Your task to perform on an android device: set the stopwatch Image 0: 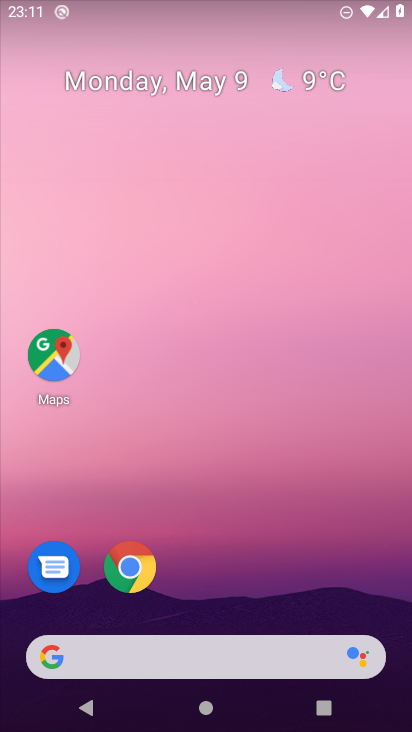
Step 0: drag from (220, 594) to (261, 20)
Your task to perform on an android device: set the stopwatch Image 1: 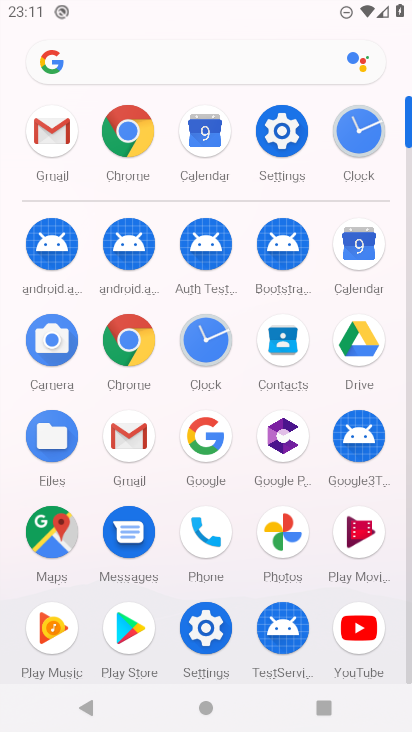
Step 1: click (207, 334)
Your task to perform on an android device: set the stopwatch Image 2: 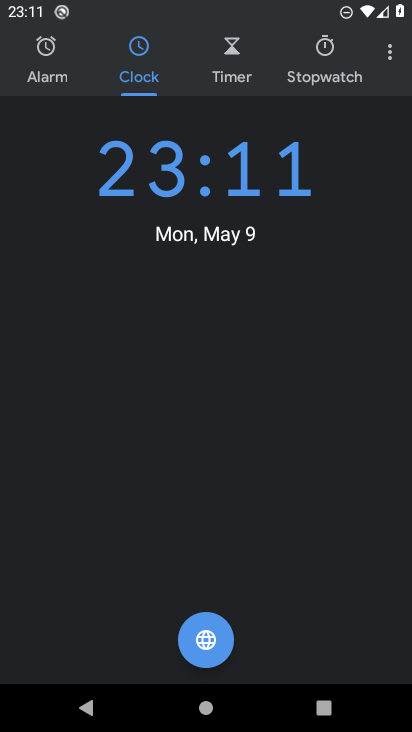
Step 2: click (326, 49)
Your task to perform on an android device: set the stopwatch Image 3: 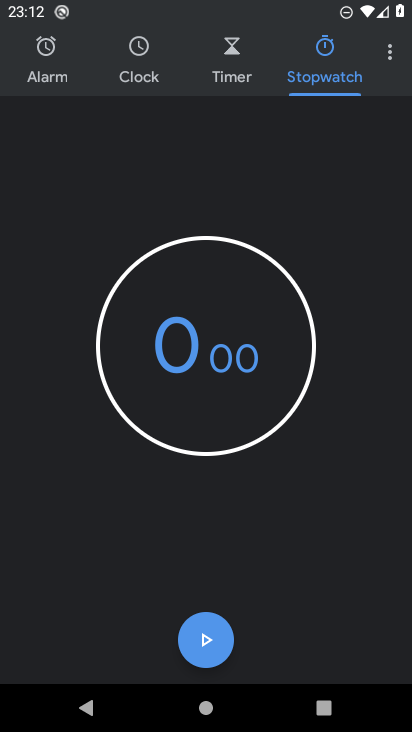
Step 3: click (211, 632)
Your task to perform on an android device: set the stopwatch Image 4: 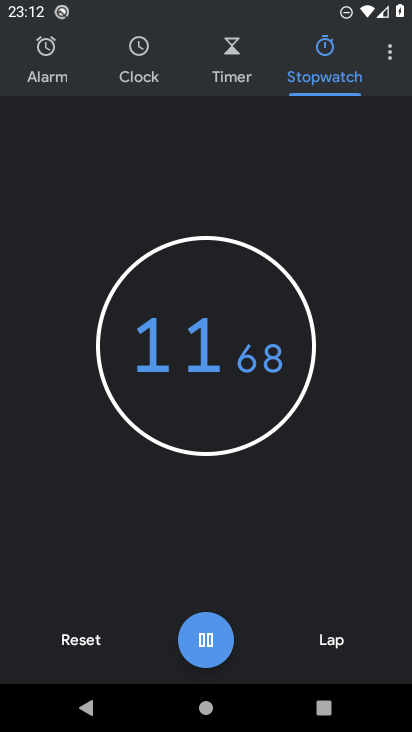
Step 4: click (83, 645)
Your task to perform on an android device: set the stopwatch Image 5: 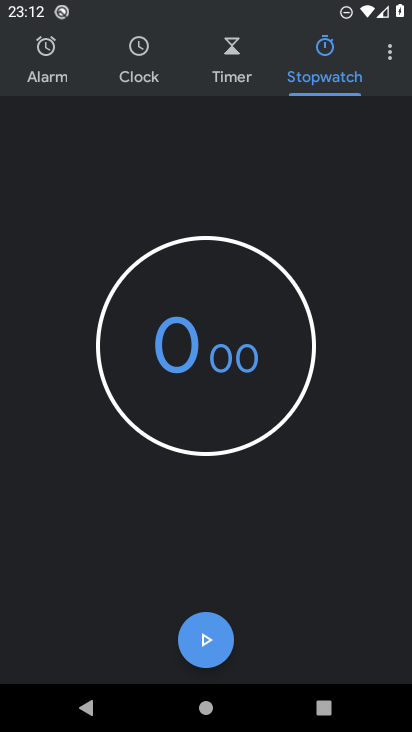
Step 5: task complete